Your task to perform on an android device: move a message to another label in the gmail app Image 0: 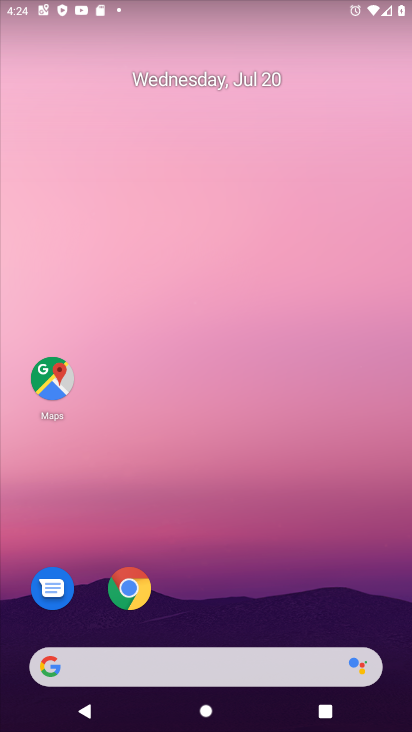
Step 0: drag from (277, 517) to (251, 174)
Your task to perform on an android device: move a message to another label in the gmail app Image 1: 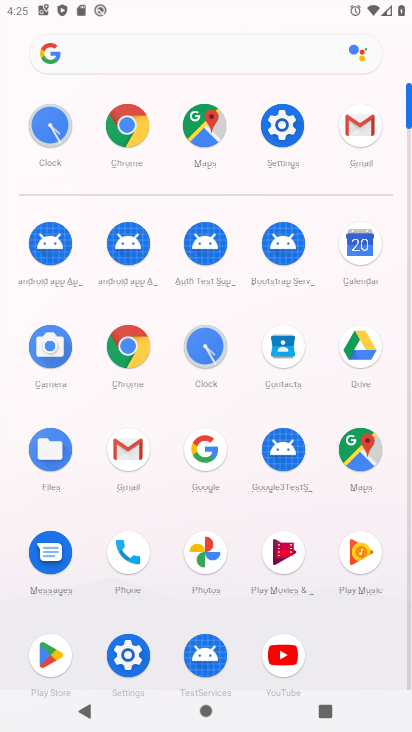
Step 1: click (364, 129)
Your task to perform on an android device: move a message to another label in the gmail app Image 2: 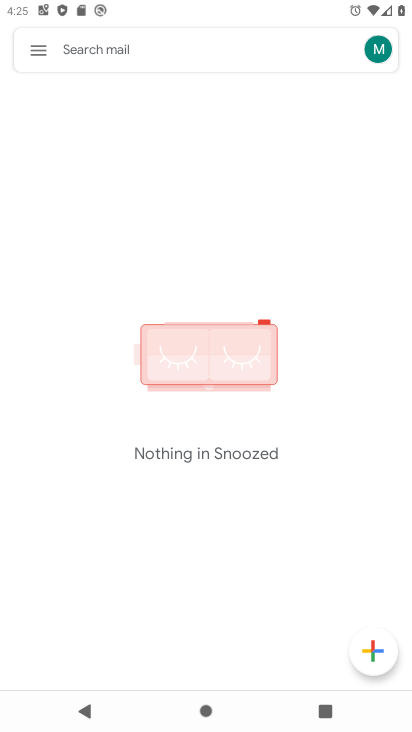
Step 2: click (28, 46)
Your task to perform on an android device: move a message to another label in the gmail app Image 3: 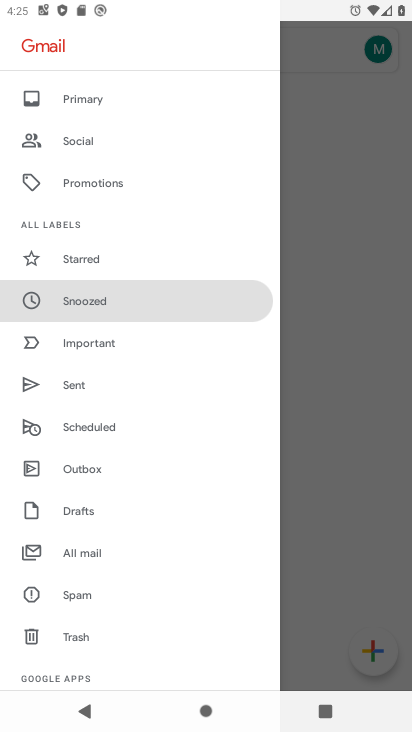
Step 3: click (94, 562)
Your task to perform on an android device: move a message to another label in the gmail app Image 4: 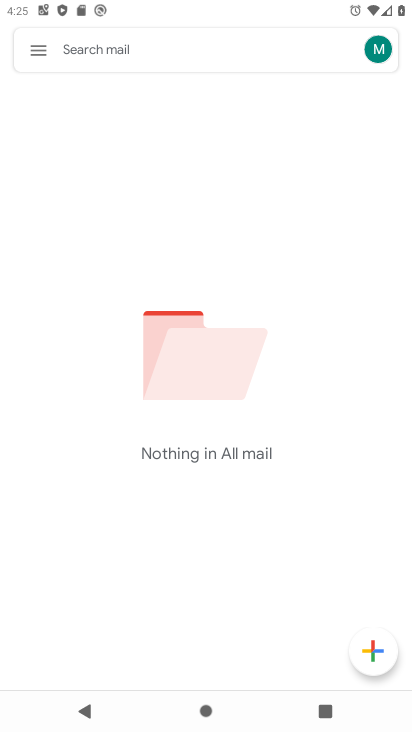
Step 4: task complete